Your task to perform on an android device: Go to CNN.com Image 0: 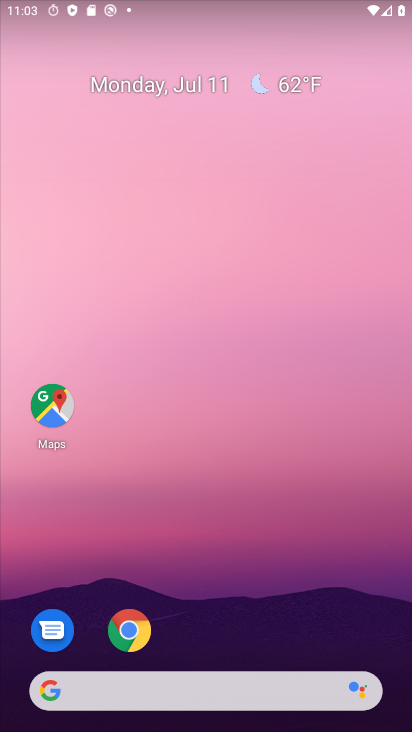
Step 0: drag from (321, 614) to (366, 16)
Your task to perform on an android device: Go to CNN.com Image 1: 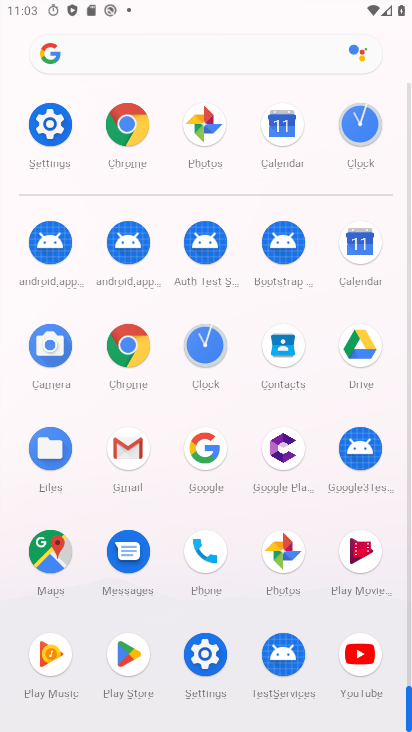
Step 1: click (131, 339)
Your task to perform on an android device: Go to CNN.com Image 2: 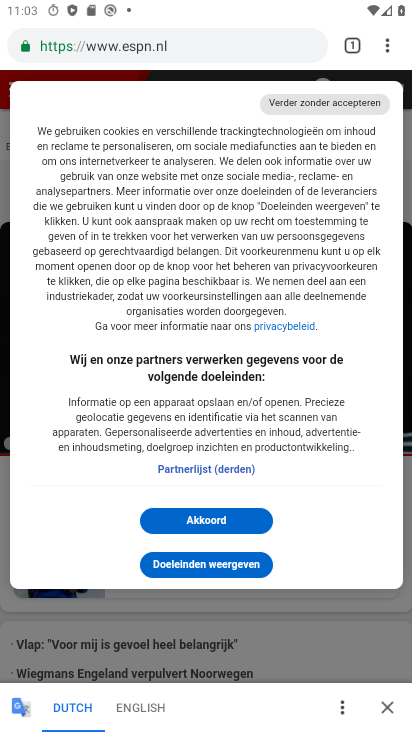
Step 2: click (242, 44)
Your task to perform on an android device: Go to CNN.com Image 3: 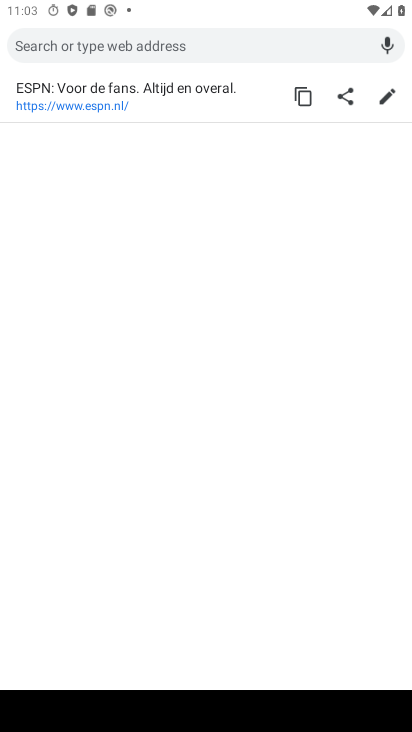
Step 3: type "cnn.com"
Your task to perform on an android device: Go to CNN.com Image 4: 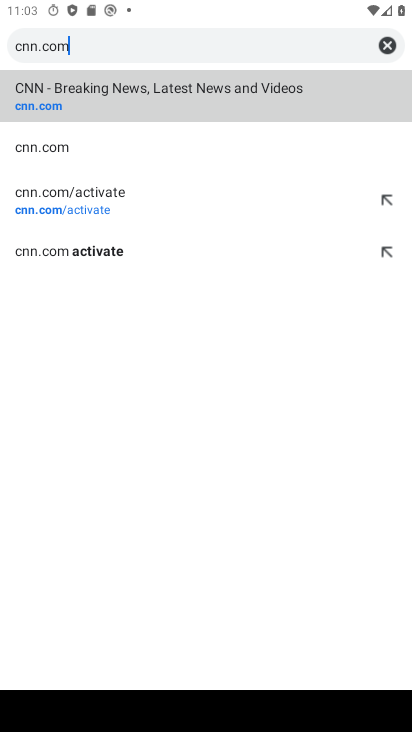
Step 4: click (273, 97)
Your task to perform on an android device: Go to CNN.com Image 5: 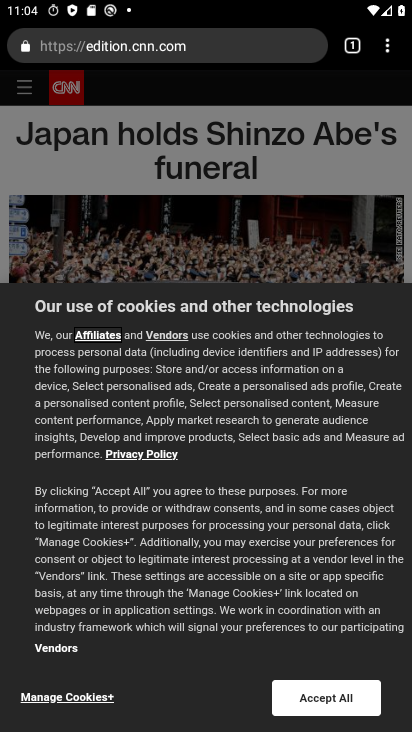
Step 5: task complete